Your task to perform on an android device: open a bookmark in the chrome app Image 0: 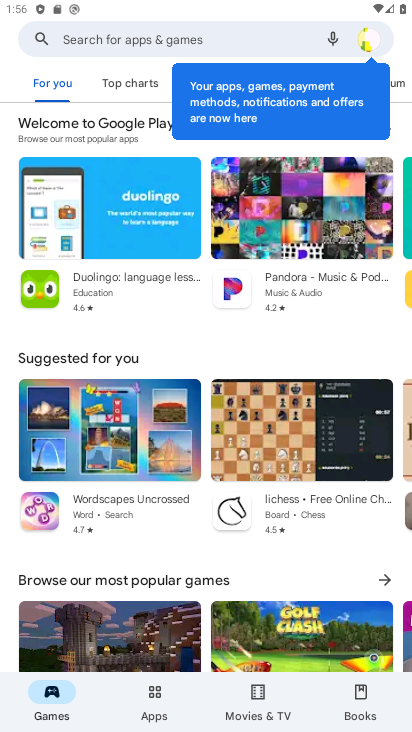
Step 0: press home button
Your task to perform on an android device: open a bookmark in the chrome app Image 1: 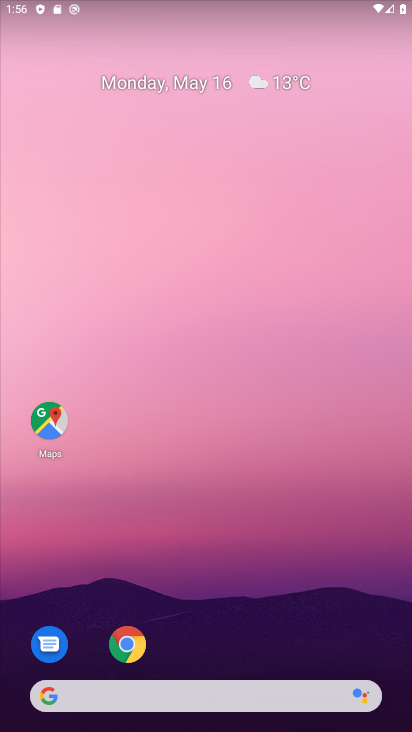
Step 1: click (127, 650)
Your task to perform on an android device: open a bookmark in the chrome app Image 2: 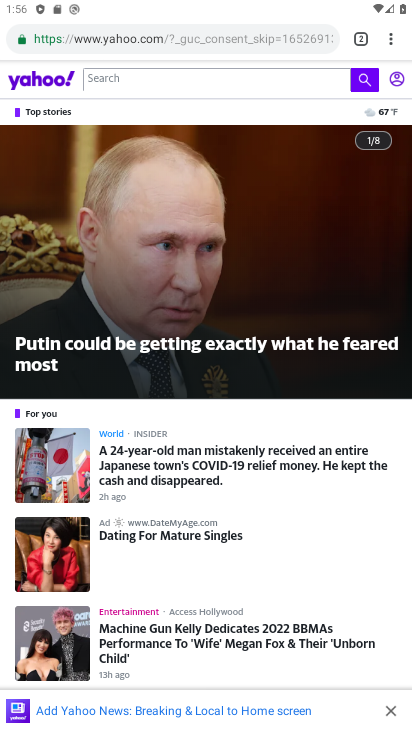
Step 2: click (387, 41)
Your task to perform on an android device: open a bookmark in the chrome app Image 3: 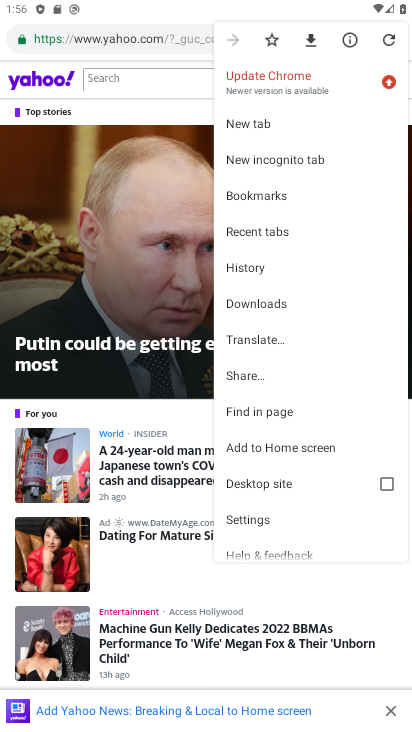
Step 3: click (243, 124)
Your task to perform on an android device: open a bookmark in the chrome app Image 4: 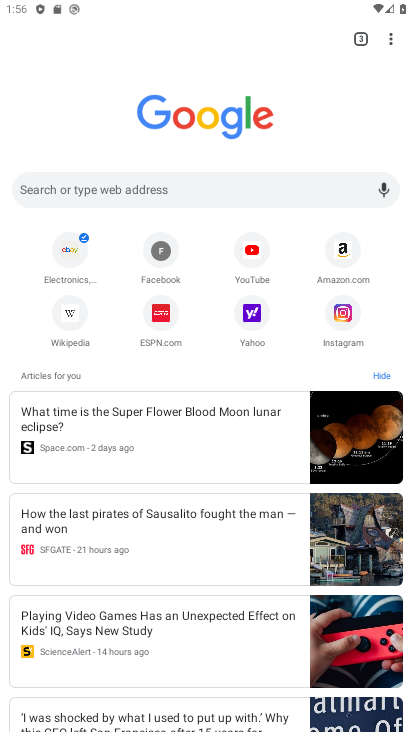
Step 4: click (68, 312)
Your task to perform on an android device: open a bookmark in the chrome app Image 5: 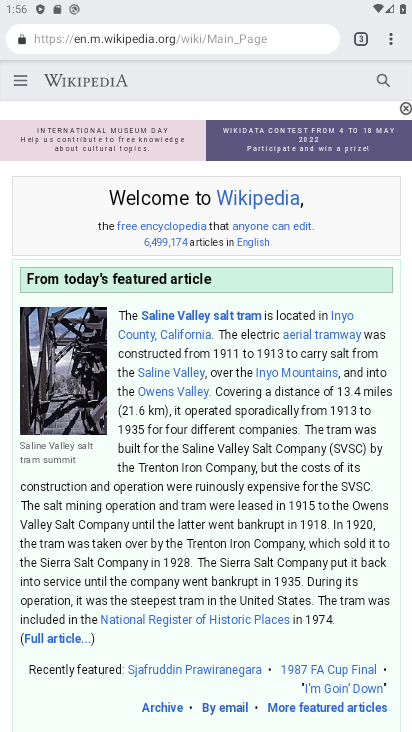
Step 5: task complete